Your task to perform on an android device: open a bookmark in the chrome app Image 0: 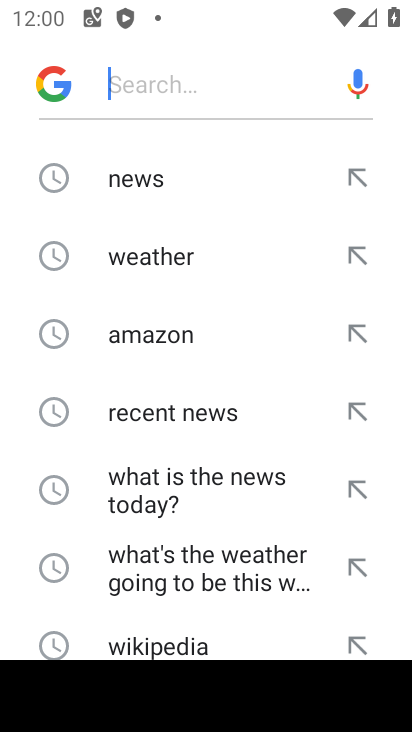
Step 0: press home button
Your task to perform on an android device: open a bookmark in the chrome app Image 1: 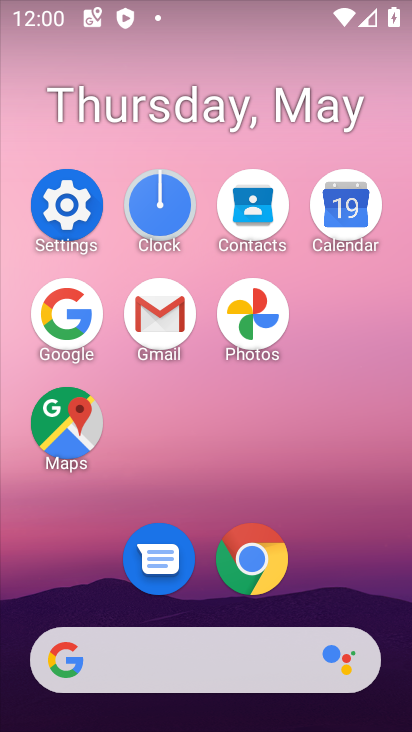
Step 1: click (243, 576)
Your task to perform on an android device: open a bookmark in the chrome app Image 2: 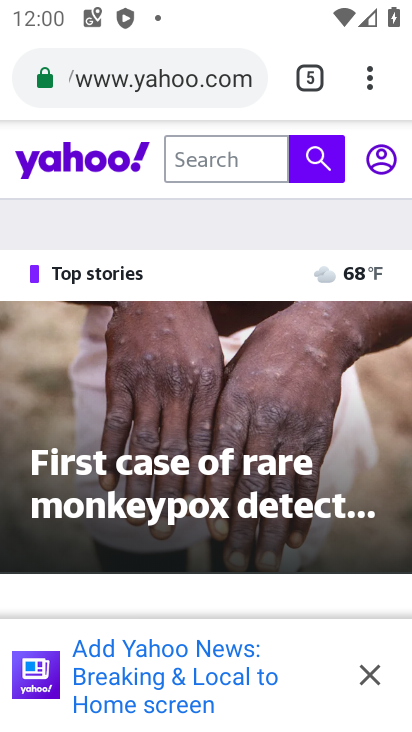
Step 2: click (365, 80)
Your task to perform on an android device: open a bookmark in the chrome app Image 3: 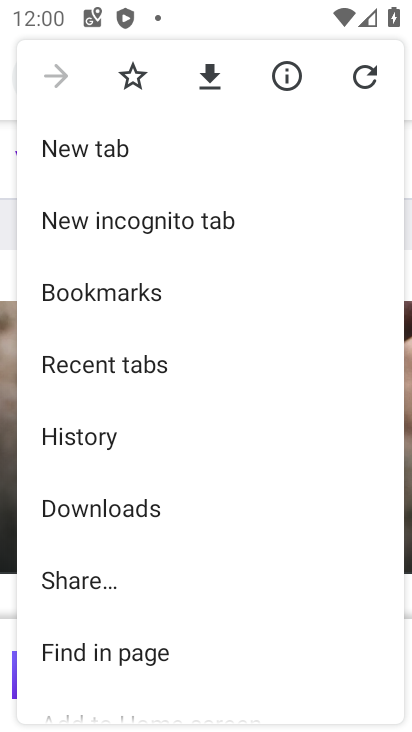
Step 3: click (162, 306)
Your task to perform on an android device: open a bookmark in the chrome app Image 4: 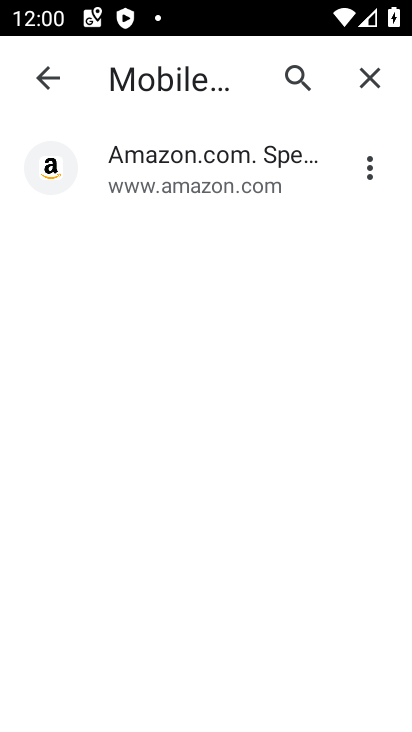
Step 4: task complete